Your task to perform on an android device: Show me the alarms in the clock app Image 0: 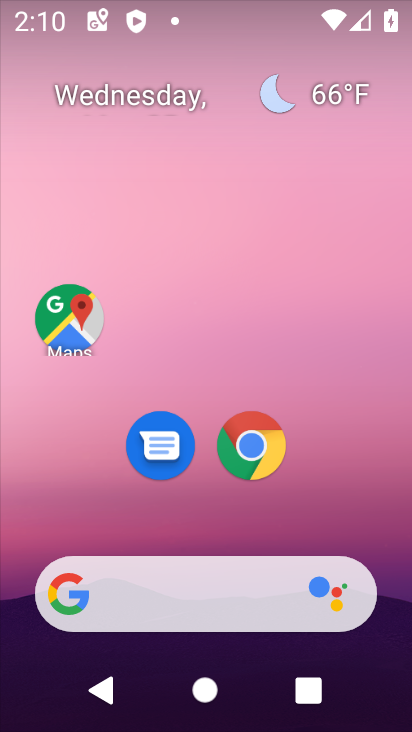
Step 0: drag from (46, 550) to (293, 168)
Your task to perform on an android device: Show me the alarms in the clock app Image 1: 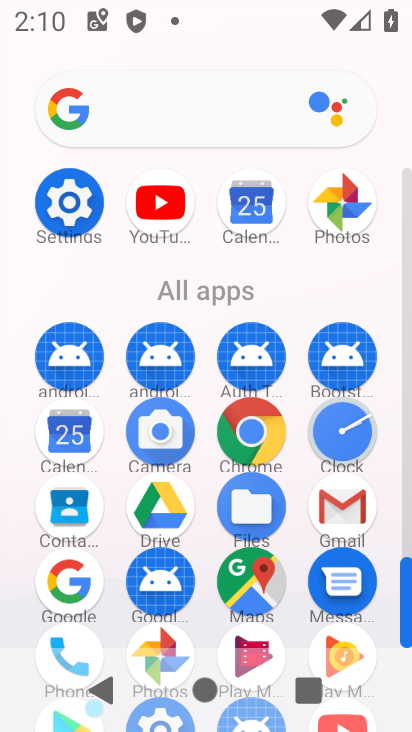
Step 1: click (338, 433)
Your task to perform on an android device: Show me the alarms in the clock app Image 2: 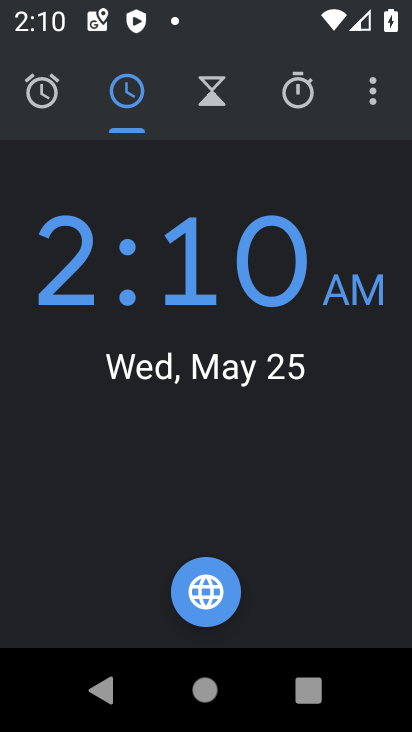
Step 2: click (54, 98)
Your task to perform on an android device: Show me the alarms in the clock app Image 3: 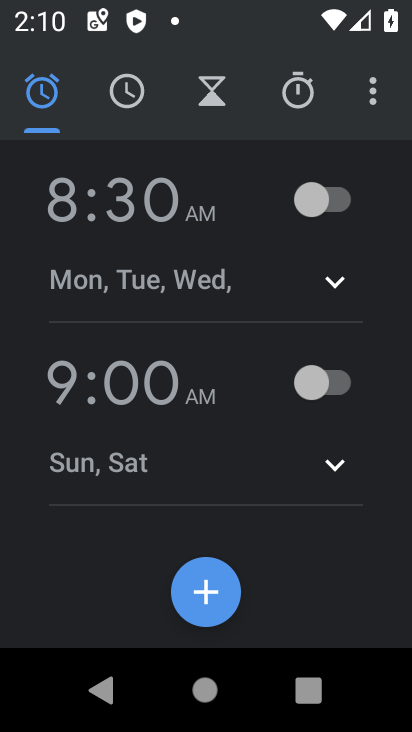
Step 3: task complete